Your task to perform on an android device: Clear the shopping cart on ebay.com. Search for razer blackwidow on ebay.com, select the first entry, and add it to the cart. Image 0: 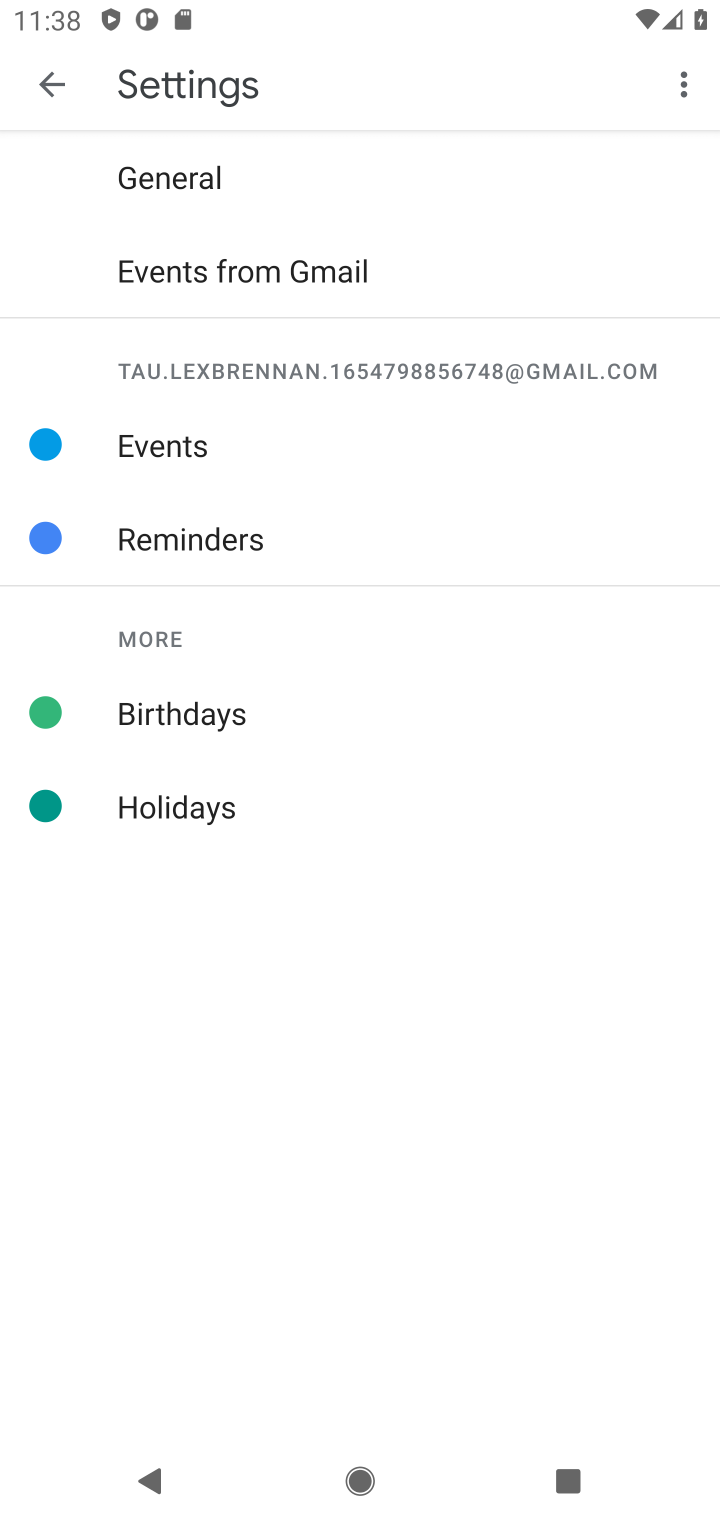
Step 0: press home button
Your task to perform on an android device: Clear the shopping cart on ebay.com. Search for razer blackwidow on ebay.com, select the first entry, and add it to the cart. Image 1: 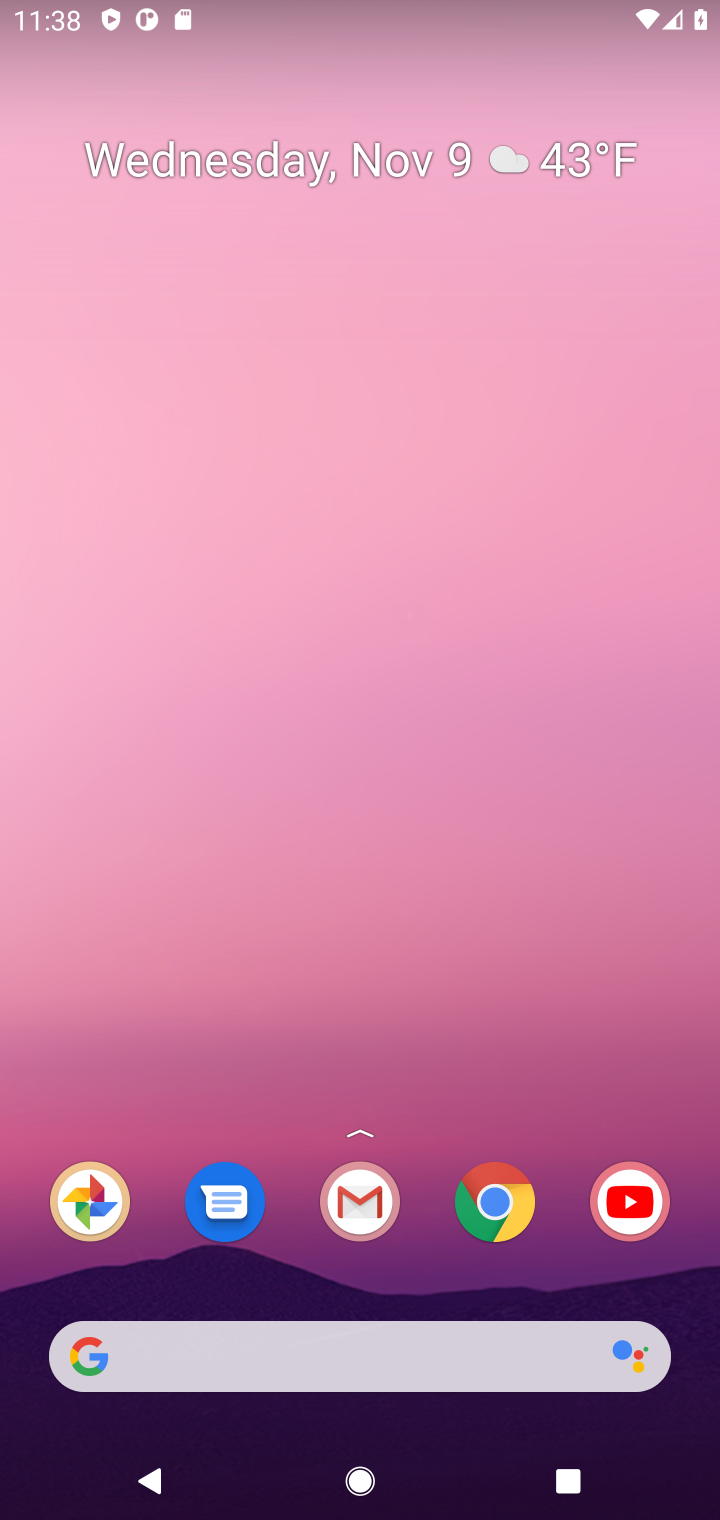
Step 1: click (496, 1188)
Your task to perform on an android device: Clear the shopping cart on ebay.com. Search for razer blackwidow on ebay.com, select the first entry, and add it to the cart. Image 2: 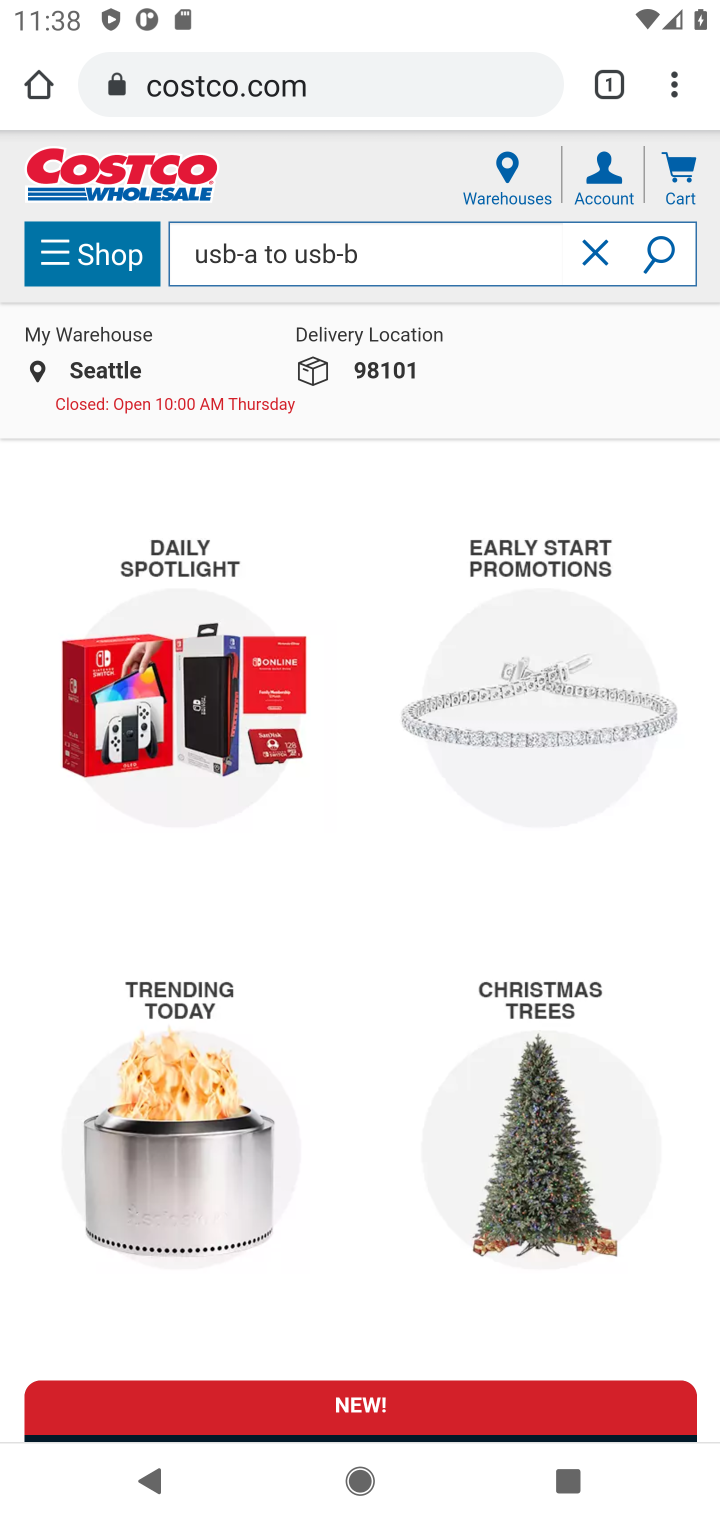
Step 2: click (381, 81)
Your task to perform on an android device: Clear the shopping cart on ebay.com. Search for razer blackwidow on ebay.com, select the first entry, and add it to the cart. Image 3: 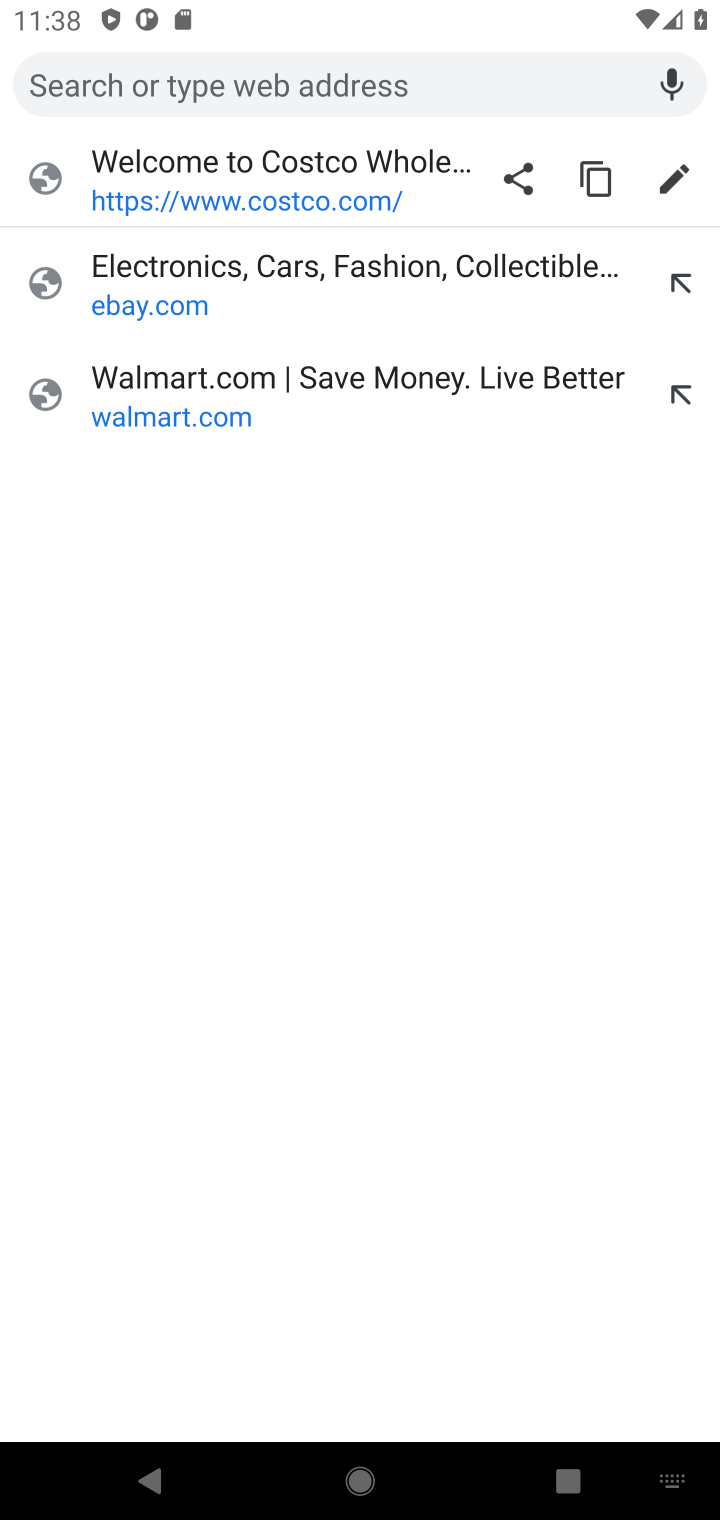
Step 3: type "ebay.com"
Your task to perform on an android device: Clear the shopping cart on ebay.com. Search for razer blackwidow on ebay.com, select the first entry, and add it to the cart. Image 4: 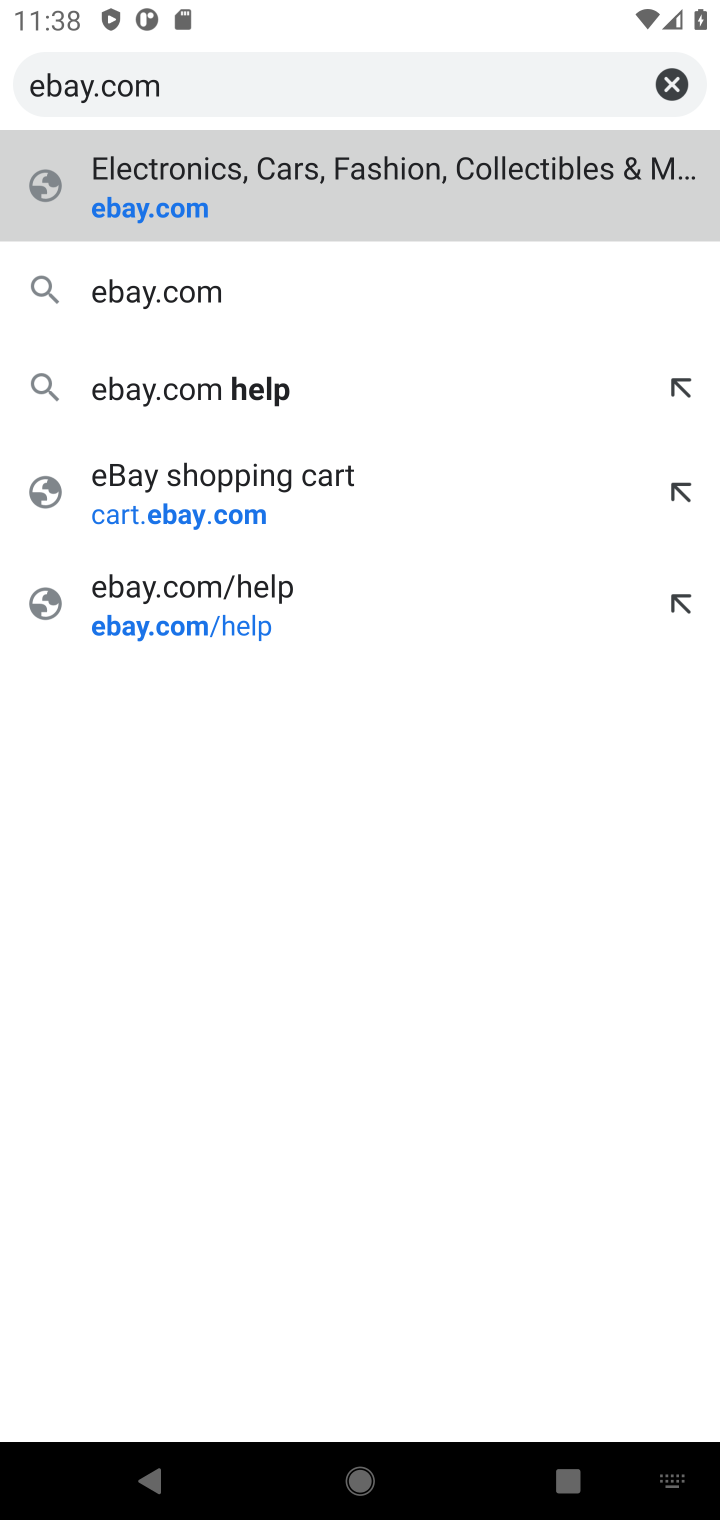
Step 4: press enter
Your task to perform on an android device: Clear the shopping cart on ebay.com. Search for razer blackwidow on ebay.com, select the first entry, and add it to the cart. Image 5: 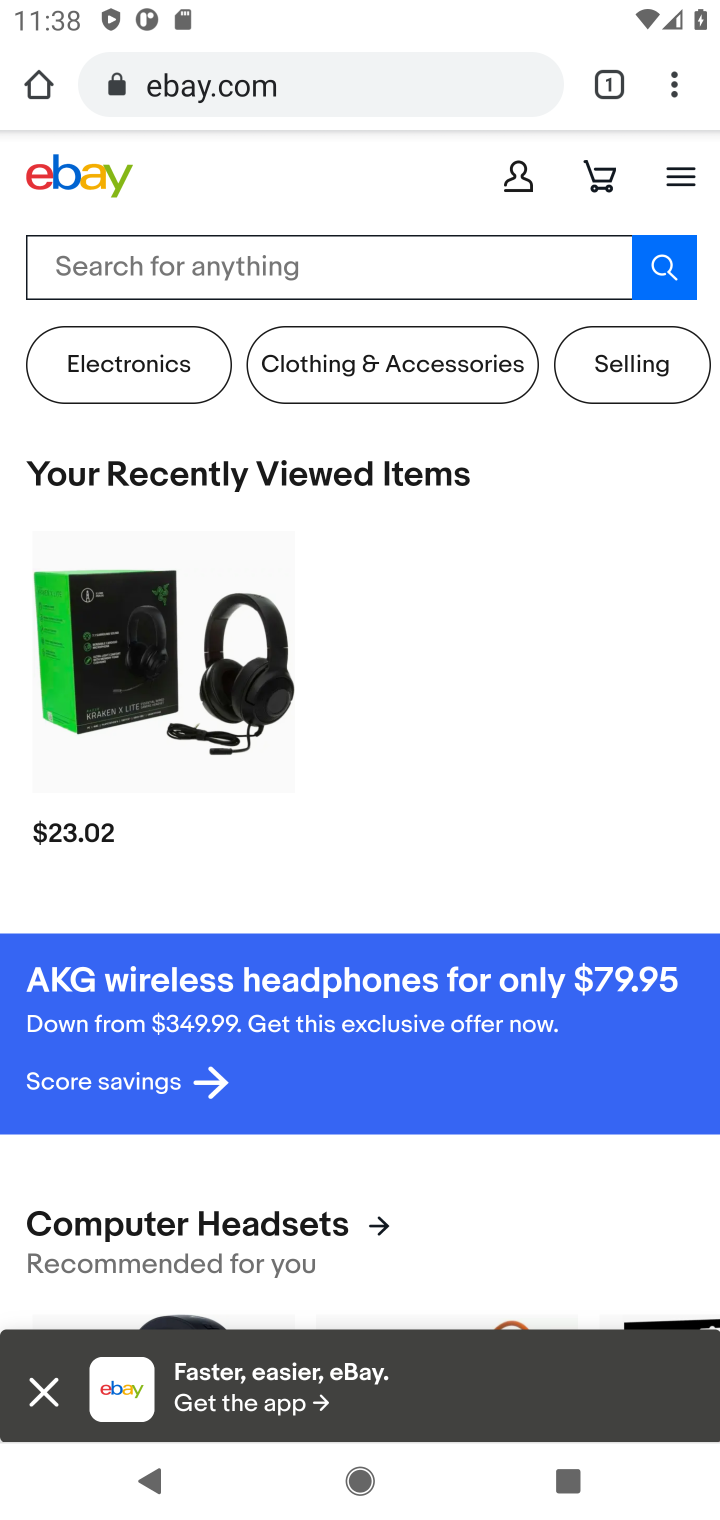
Step 5: click (599, 190)
Your task to perform on an android device: Clear the shopping cart on ebay.com. Search for razer blackwidow on ebay.com, select the first entry, and add it to the cart. Image 6: 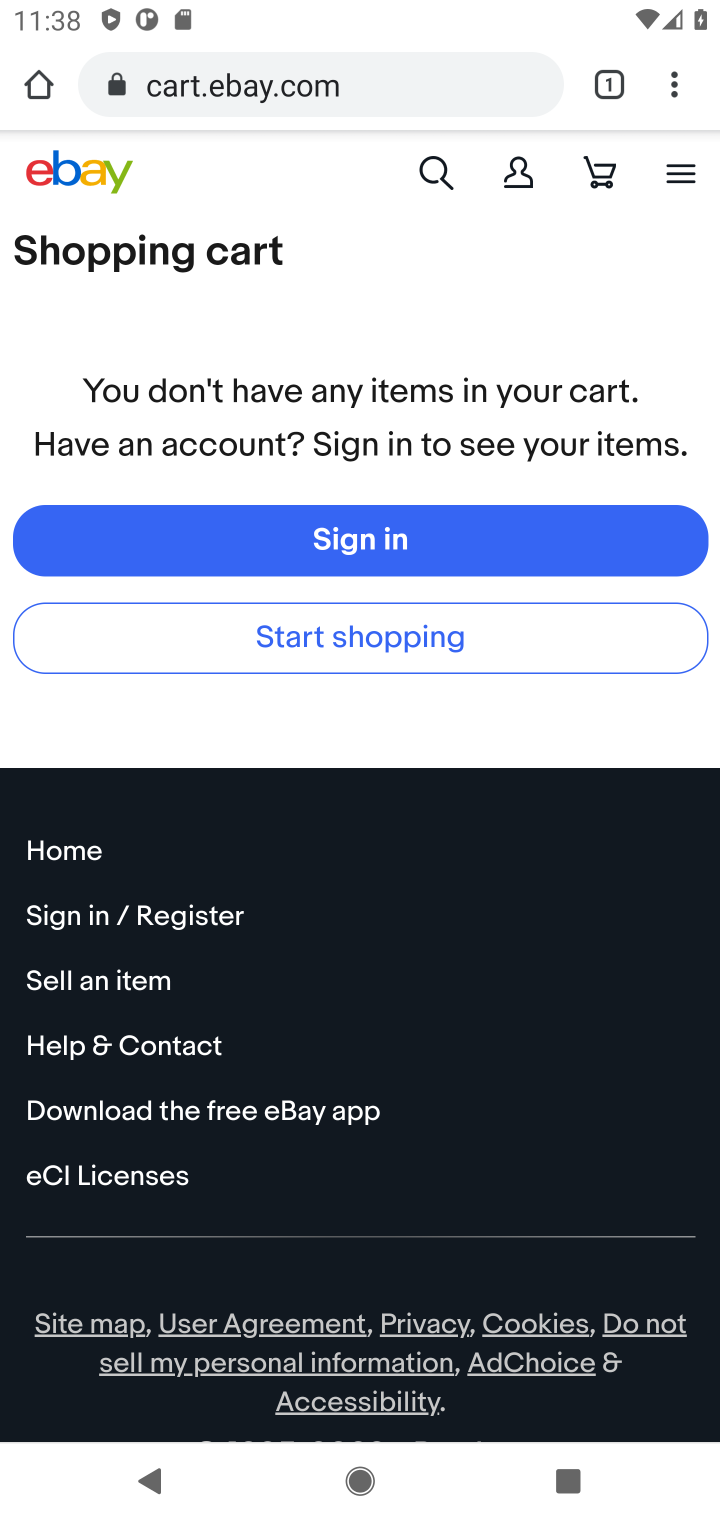
Step 6: click (429, 169)
Your task to perform on an android device: Clear the shopping cart on ebay.com. Search for razer blackwidow on ebay.com, select the first entry, and add it to the cart. Image 7: 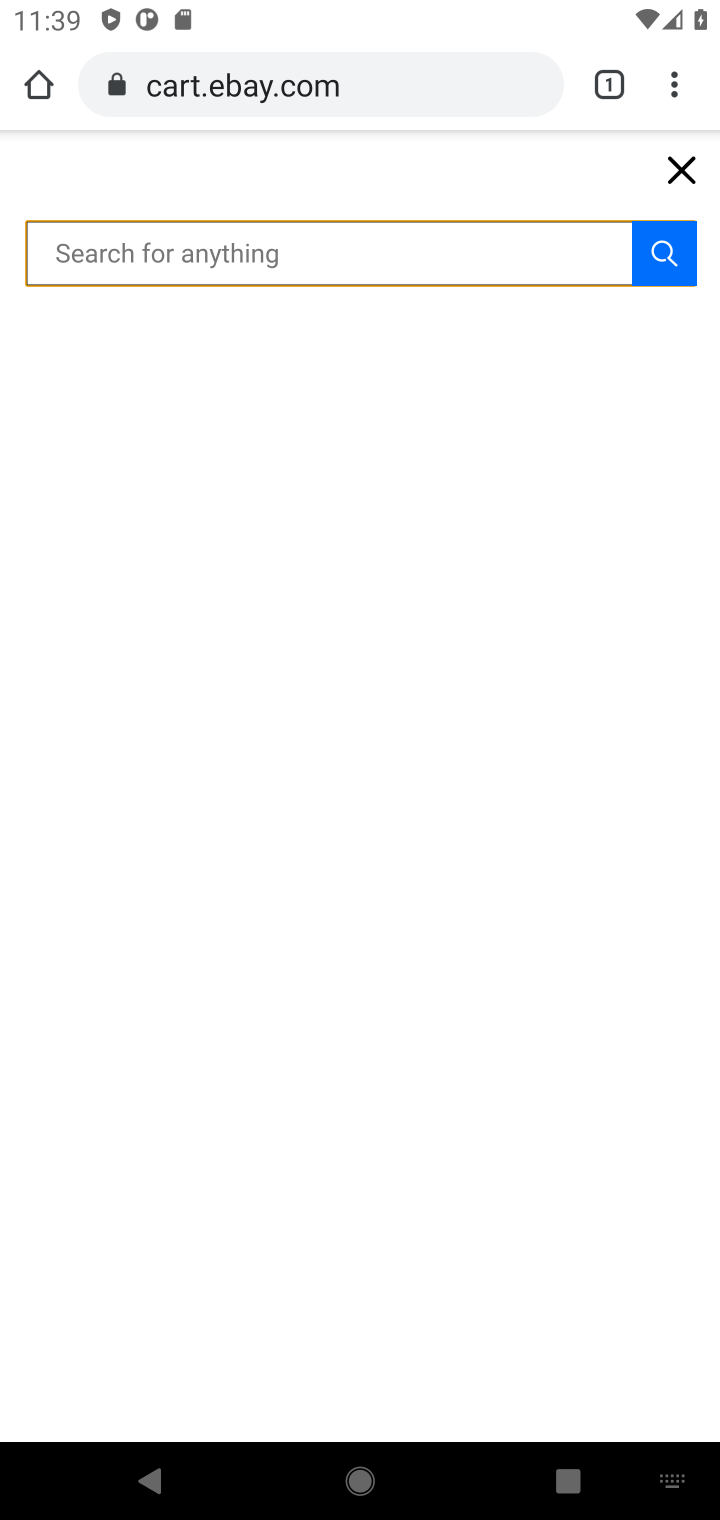
Step 7: click (683, 177)
Your task to perform on an android device: Clear the shopping cart on ebay.com. Search for razer blackwidow on ebay.com, select the first entry, and add it to the cart. Image 8: 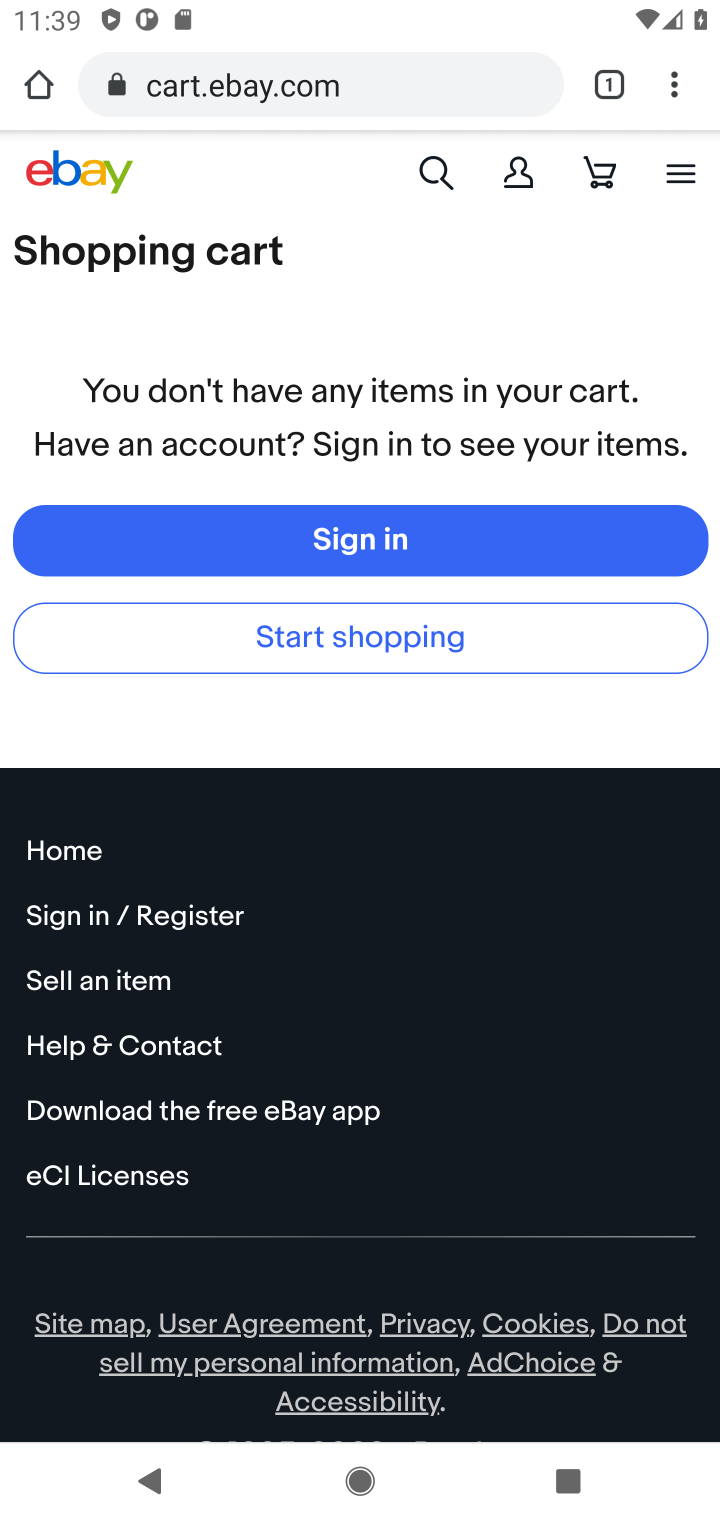
Step 8: click (608, 169)
Your task to perform on an android device: Clear the shopping cart on ebay.com. Search for razer blackwidow on ebay.com, select the first entry, and add it to the cart. Image 9: 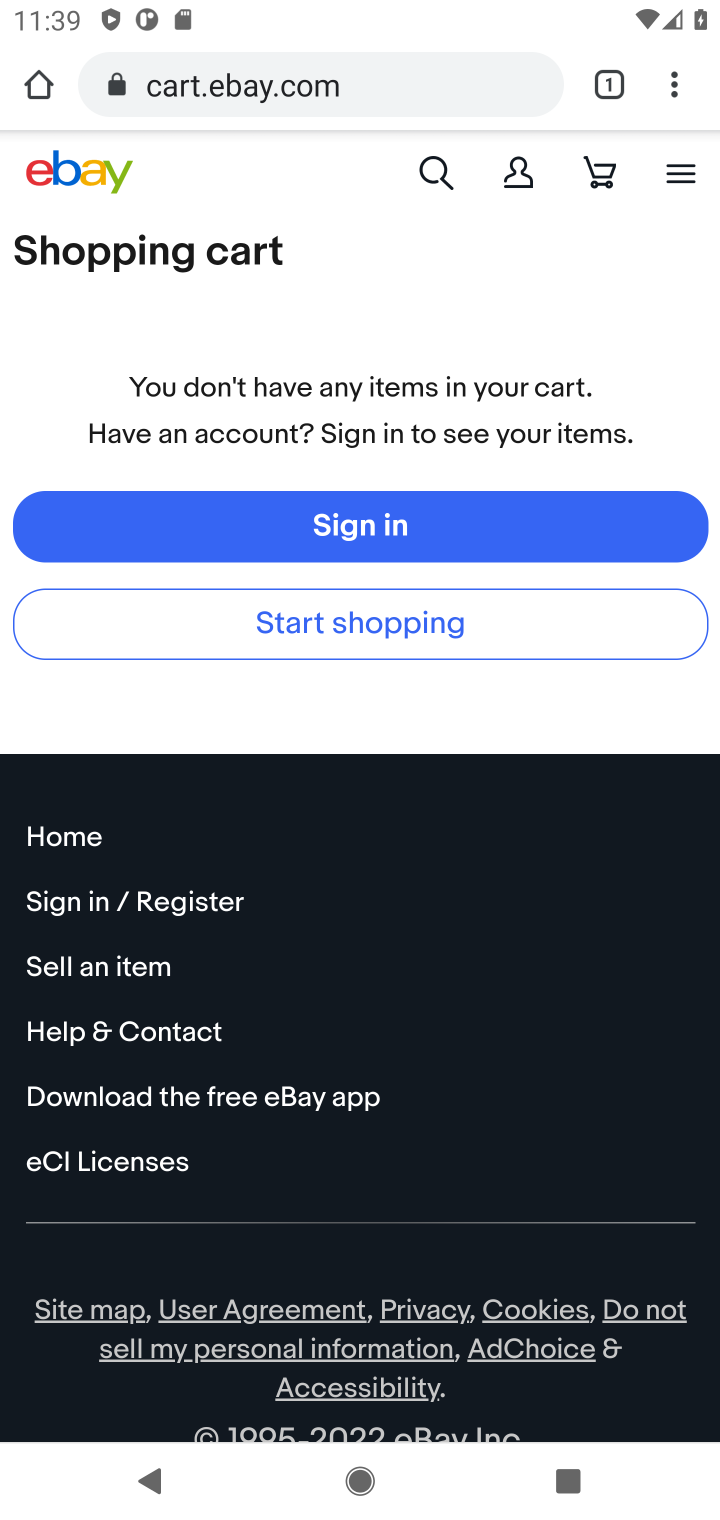
Step 9: click (442, 171)
Your task to perform on an android device: Clear the shopping cart on ebay.com. Search for razer blackwidow on ebay.com, select the first entry, and add it to the cart. Image 10: 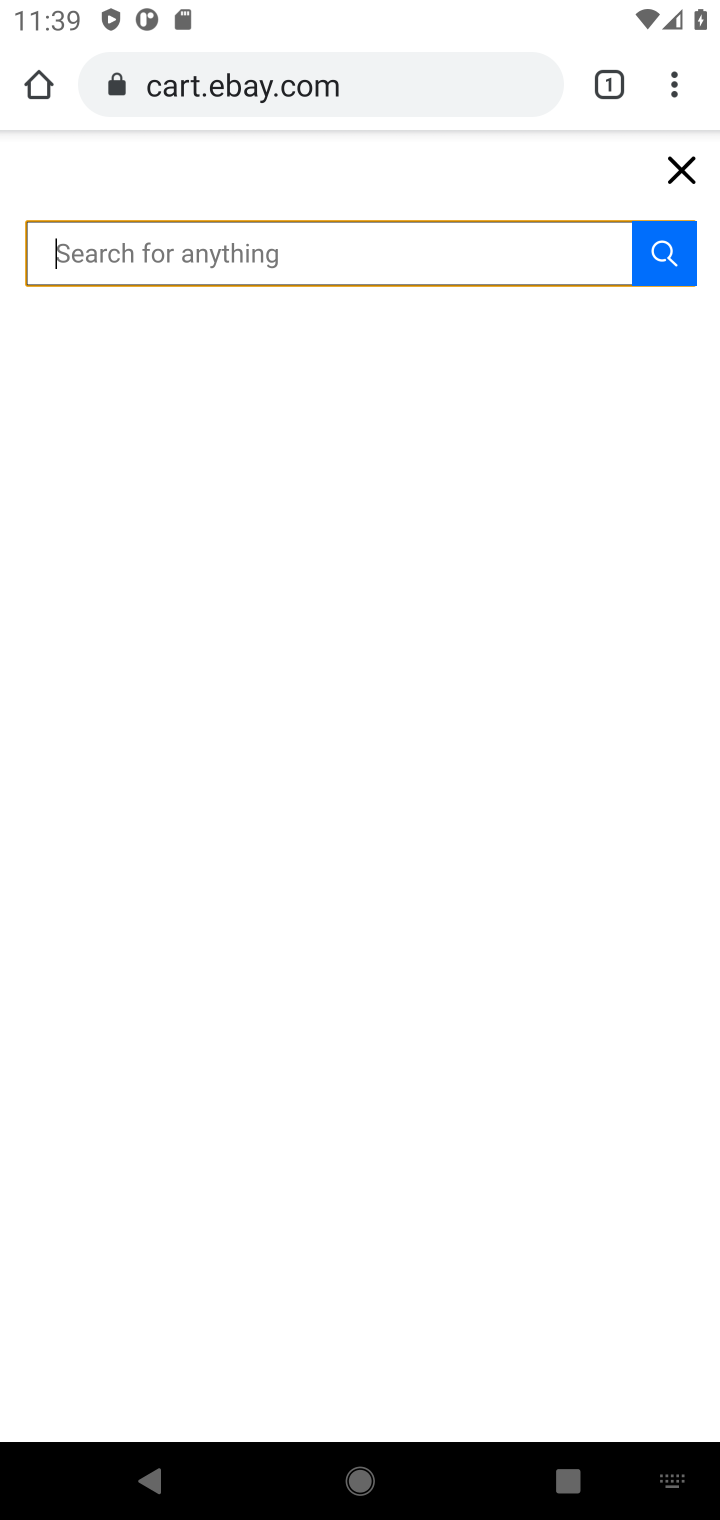
Step 10: type "razer blackwidow"
Your task to perform on an android device: Clear the shopping cart on ebay.com. Search for razer blackwidow on ebay.com, select the first entry, and add it to the cart. Image 11: 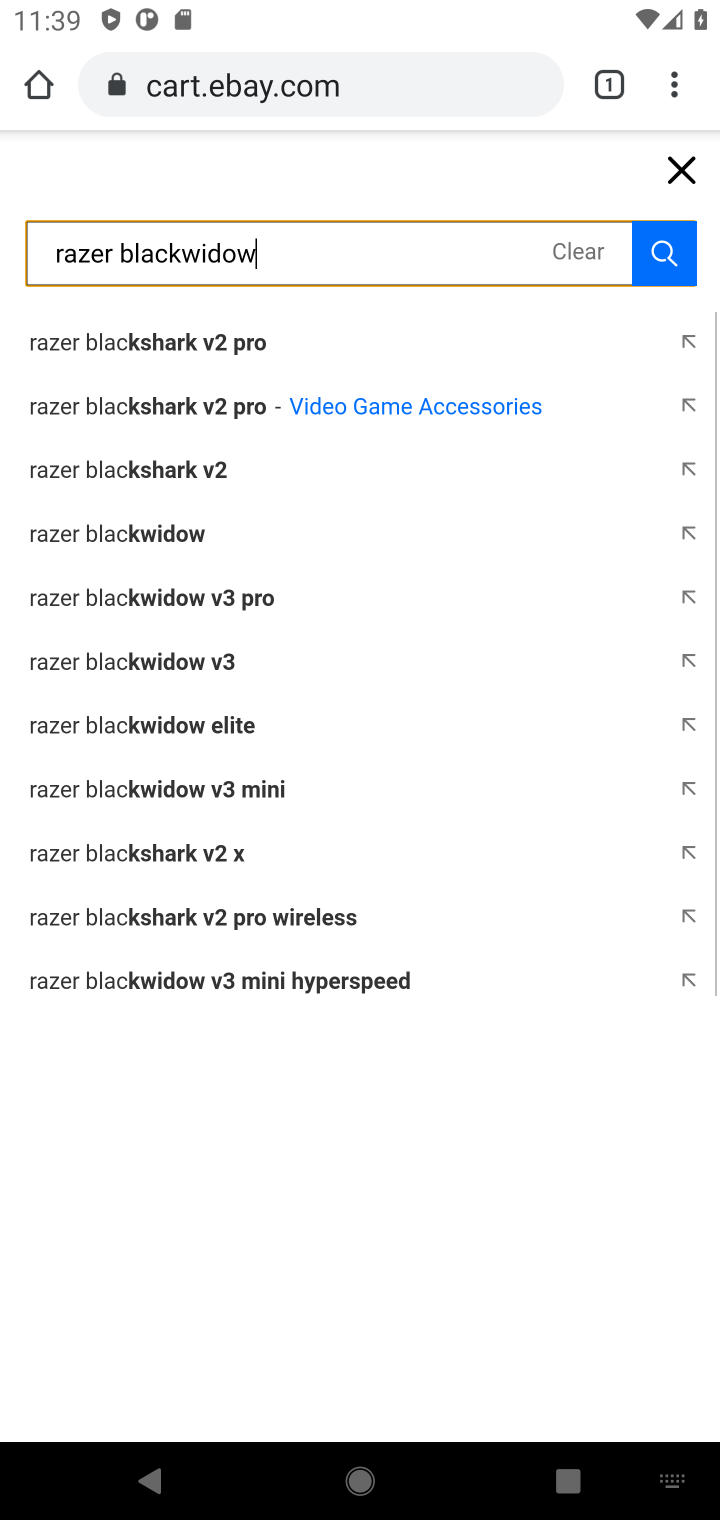
Step 11: press enter
Your task to perform on an android device: Clear the shopping cart on ebay.com. Search for razer blackwidow on ebay.com, select the first entry, and add it to the cart. Image 12: 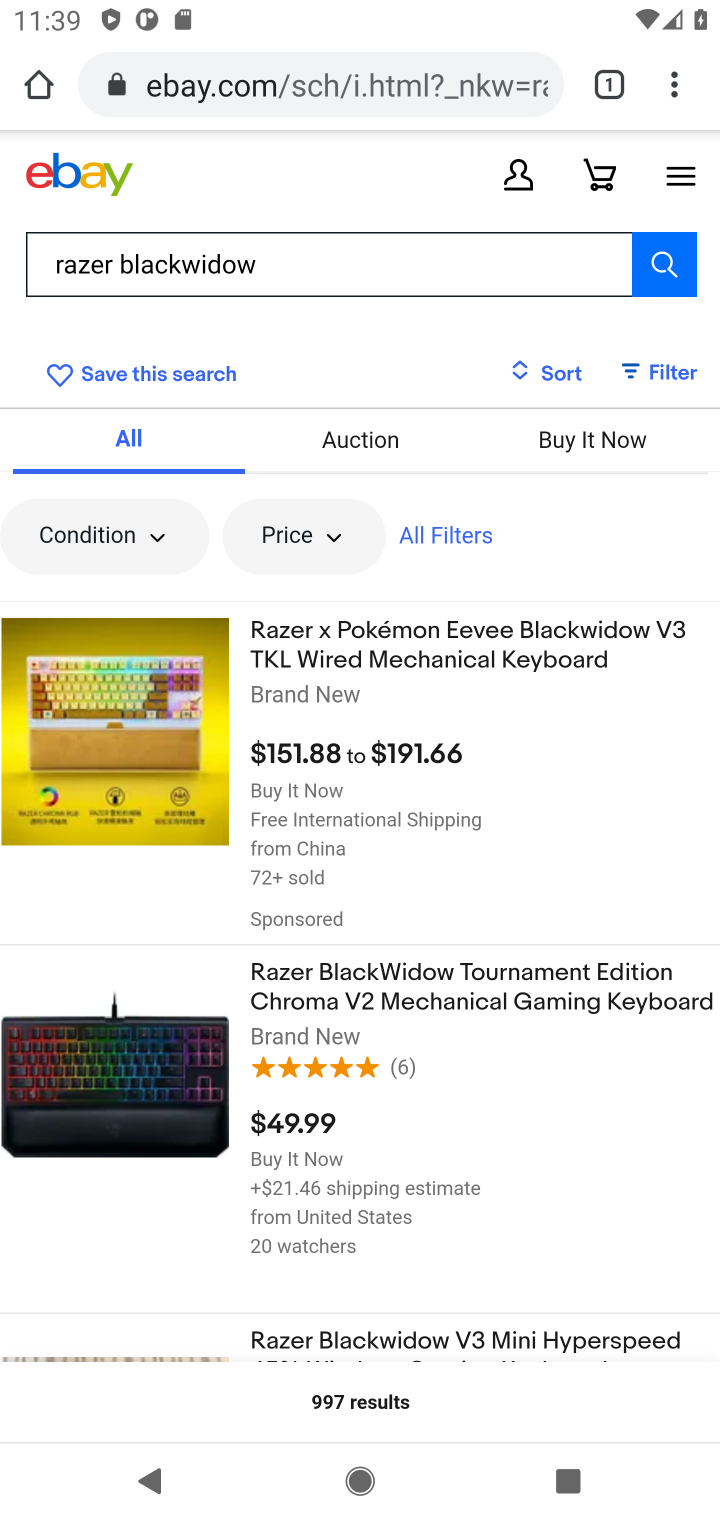
Step 12: click (145, 1061)
Your task to perform on an android device: Clear the shopping cart on ebay.com. Search for razer blackwidow on ebay.com, select the first entry, and add it to the cart. Image 13: 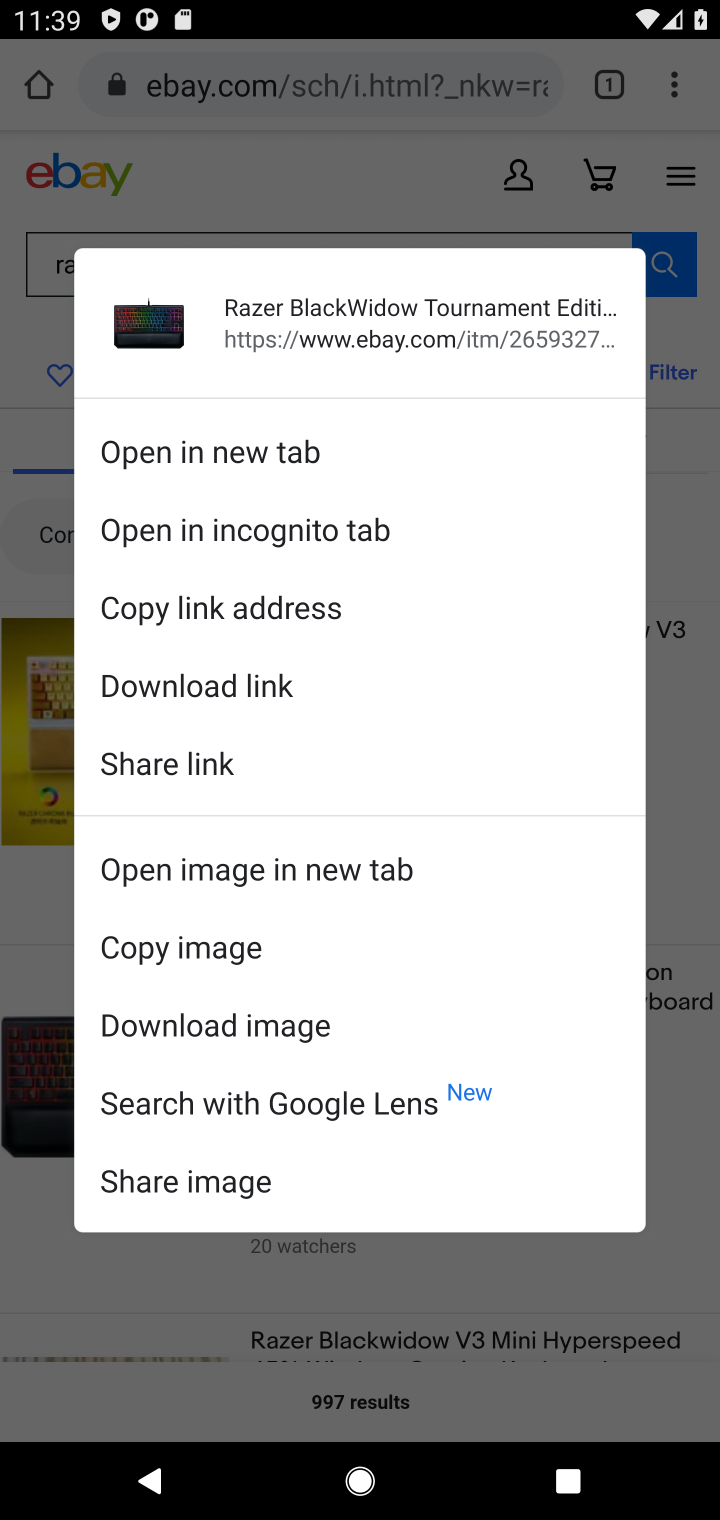
Step 13: click (378, 1257)
Your task to perform on an android device: Clear the shopping cart on ebay.com. Search for razer blackwidow on ebay.com, select the first entry, and add it to the cart. Image 14: 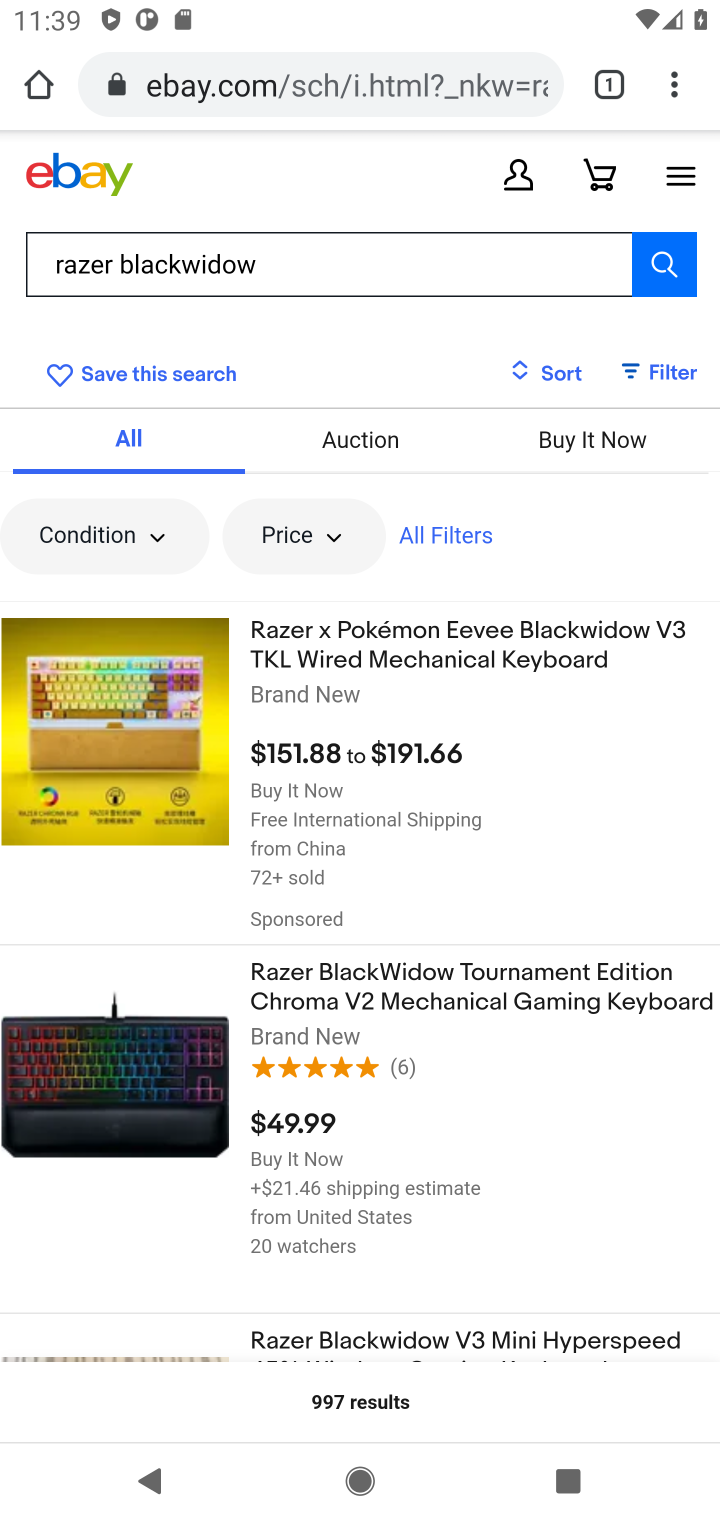
Step 14: click (90, 1099)
Your task to perform on an android device: Clear the shopping cart on ebay.com. Search for razer blackwidow on ebay.com, select the first entry, and add it to the cart. Image 15: 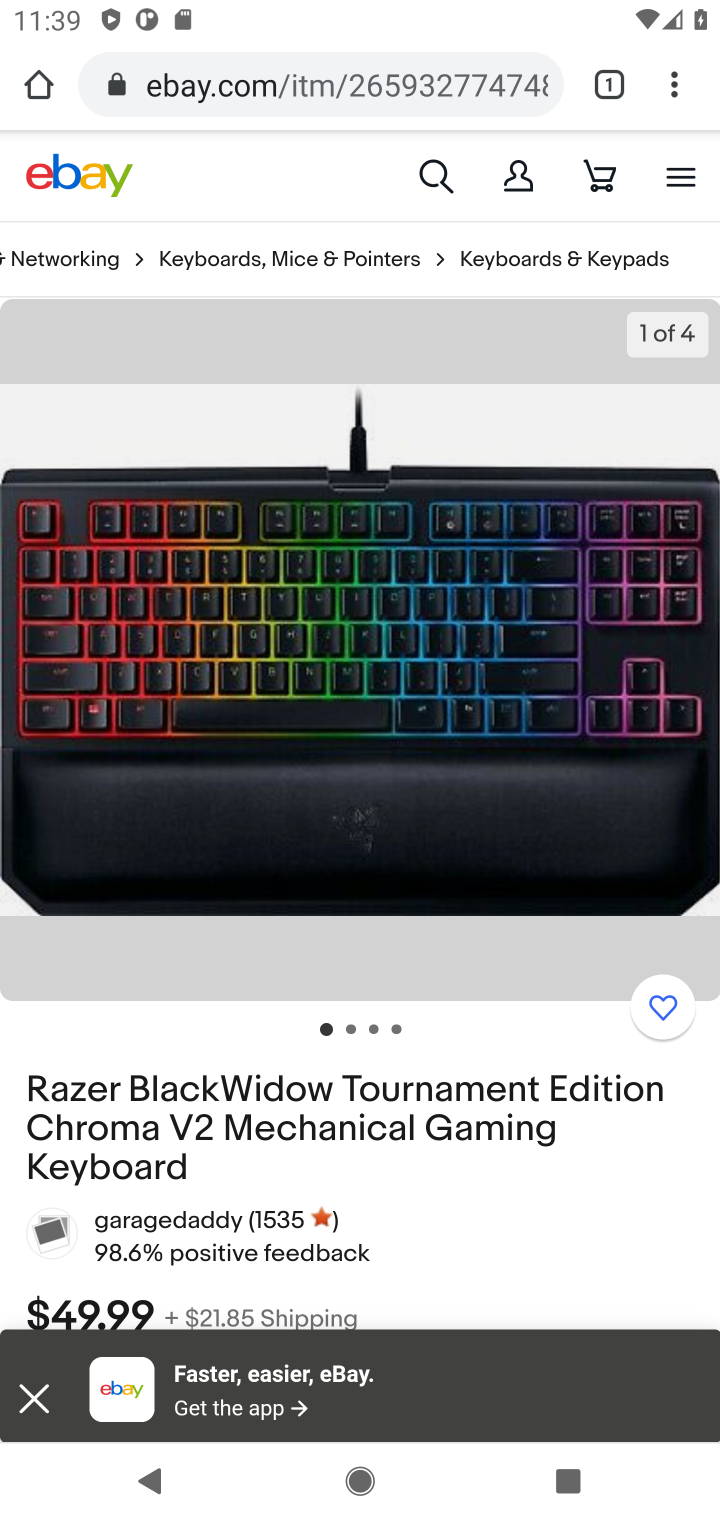
Step 15: drag from (565, 1243) to (439, 541)
Your task to perform on an android device: Clear the shopping cart on ebay.com. Search for razer blackwidow on ebay.com, select the first entry, and add it to the cart. Image 16: 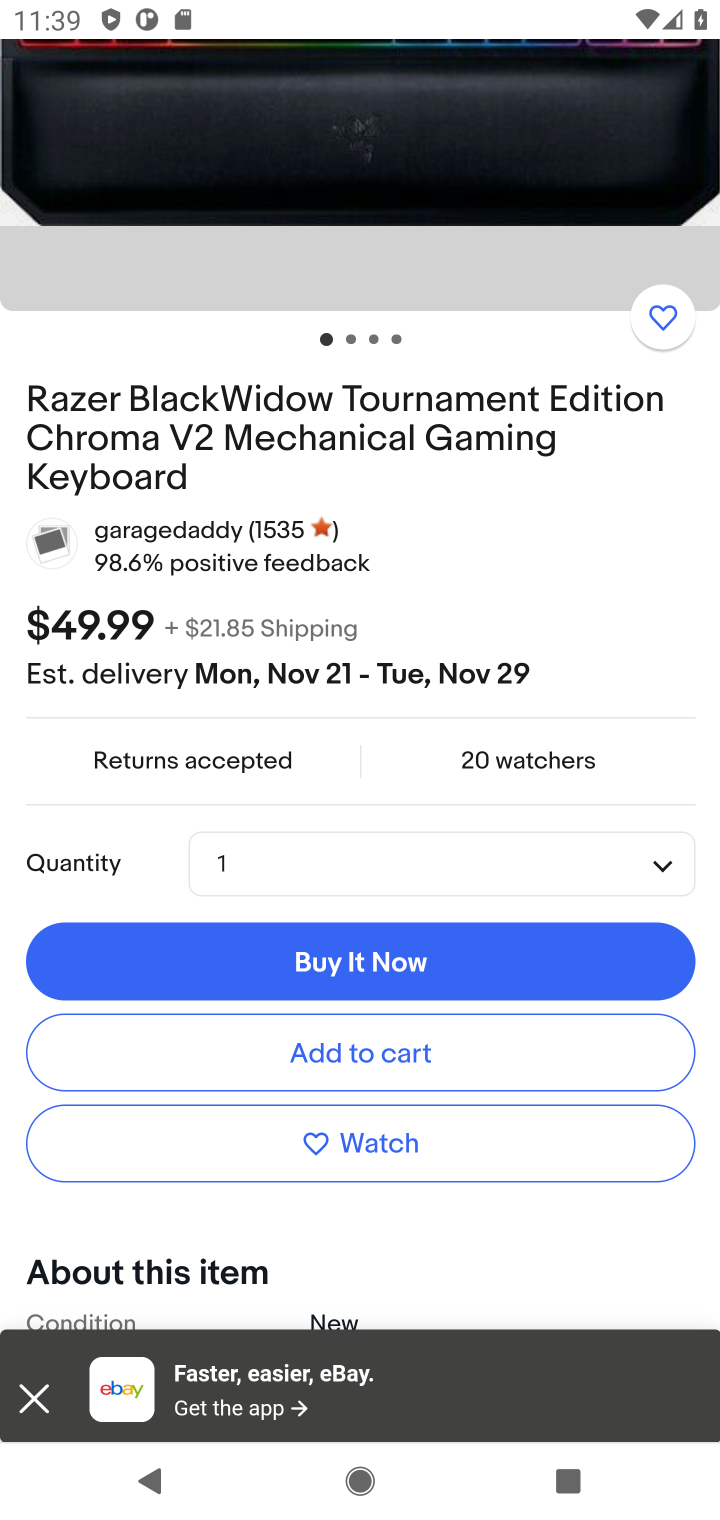
Step 16: click (390, 1040)
Your task to perform on an android device: Clear the shopping cart on ebay.com. Search for razer blackwidow on ebay.com, select the first entry, and add it to the cart. Image 17: 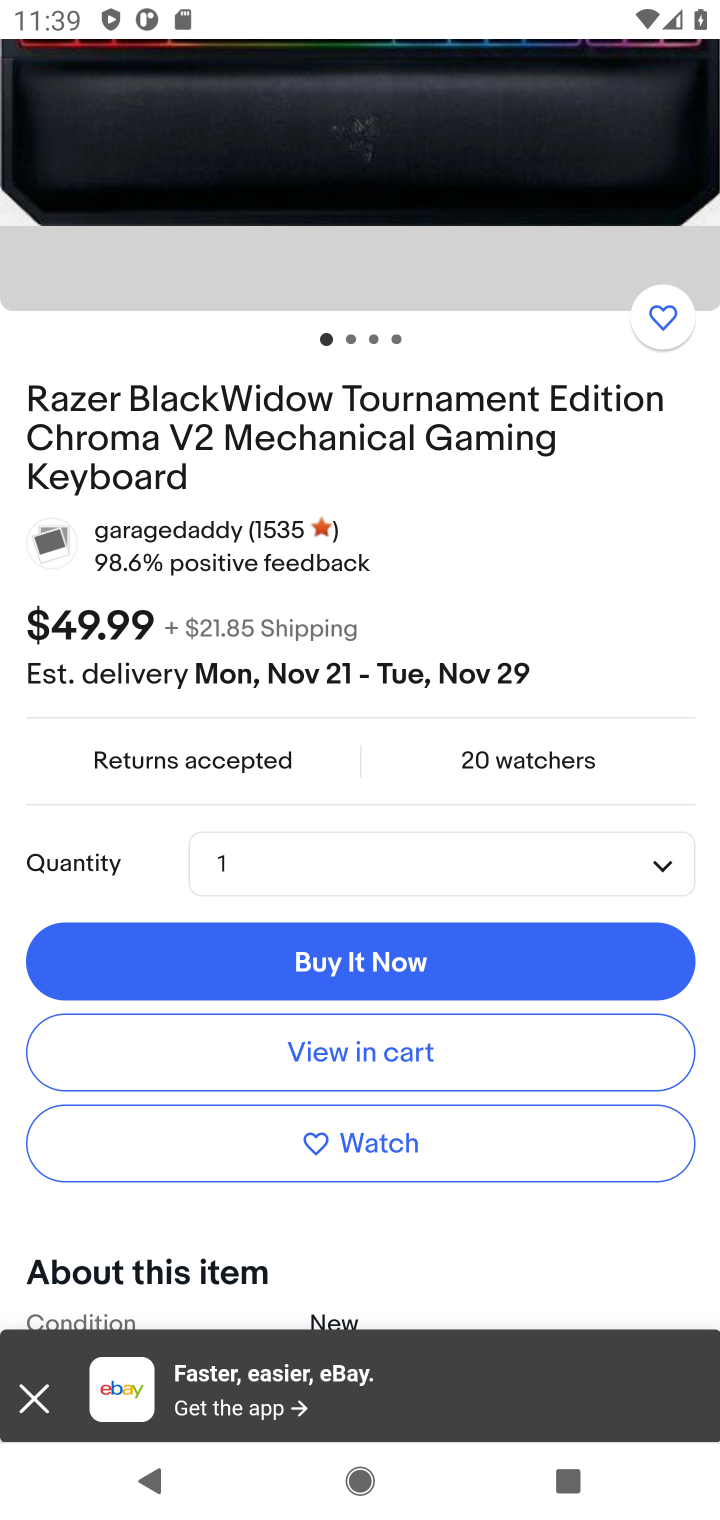
Step 17: click (390, 1040)
Your task to perform on an android device: Clear the shopping cart on ebay.com. Search for razer blackwidow on ebay.com, select the first entry, and add it to the cart. Image 18: 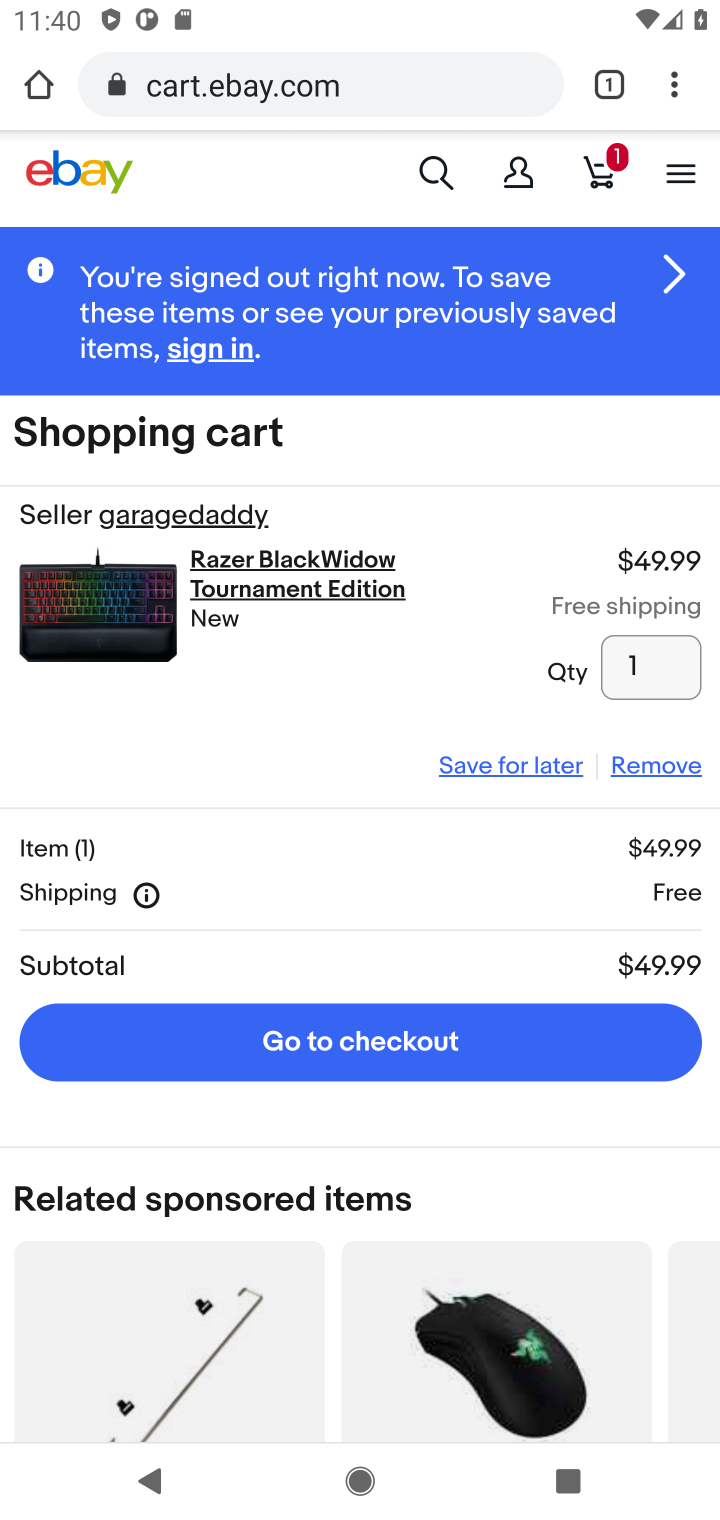
Step 18: task complete